Your task to perform on an android device: see creations saved in the google photos Image 0: 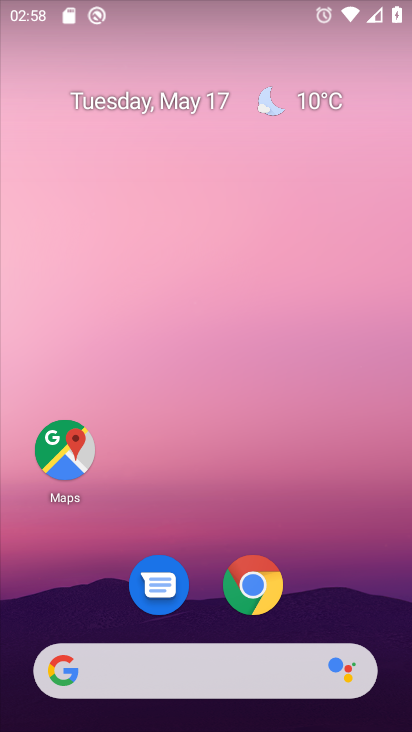
Step 0: drag from (300, 462) to (294, 0)
Your task to perform on an android device: see creations saved in the google photos Image 1: 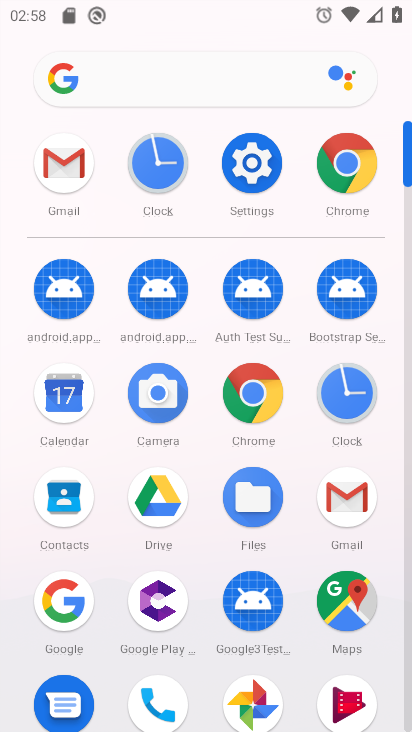
Step 1: click (256, 685)
Your task to perform on an android device: see creations saved in the google photos Image 2: 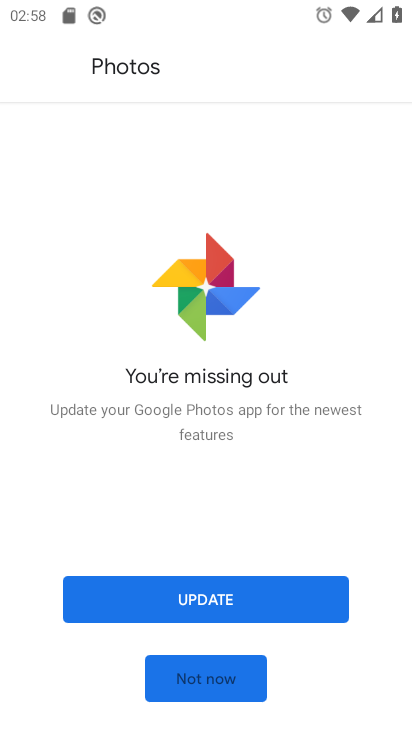
Step 2: click (222, 681)
Your task to perform on an android device: see creations saved in the google photos Image 3: 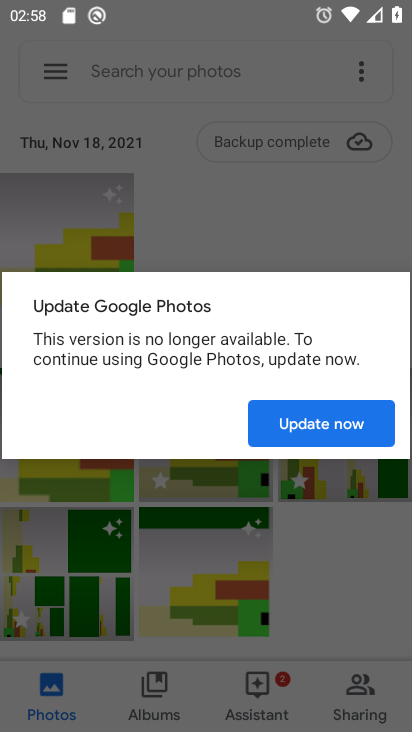
Step 3: click (336, 423)
Your task to perform on an android device: see creations saved in the google photos Image 4: 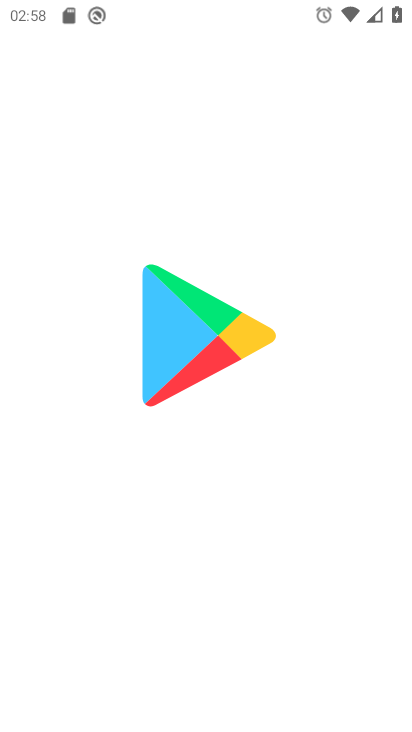
Step 4: click (184, 64)
Your task to perform on an android device: see creations saved in the google photos Image 5: 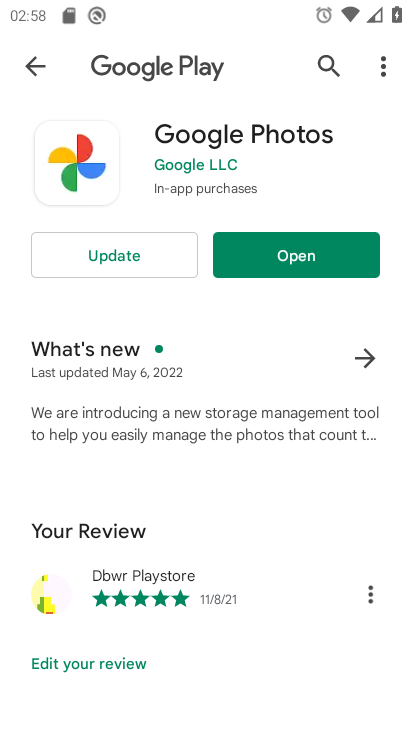
Step 5: click (305, 254)
Your task to perform on an android device: see creations saved in the google photos Image 6: 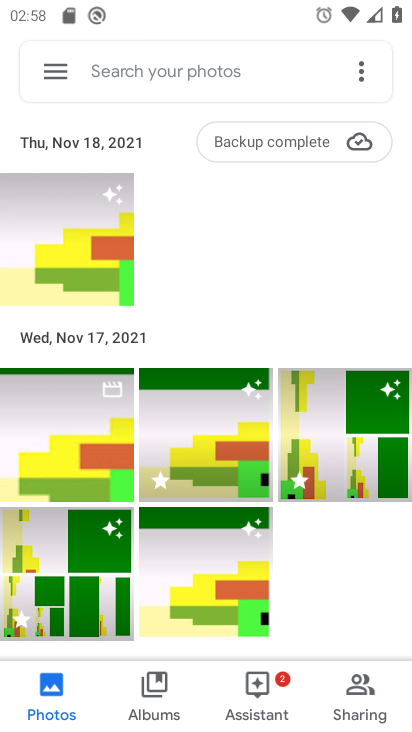
Step 6: click (229, 62)
Your task to perform on an android device: see creations saved in the google photos Image 7: 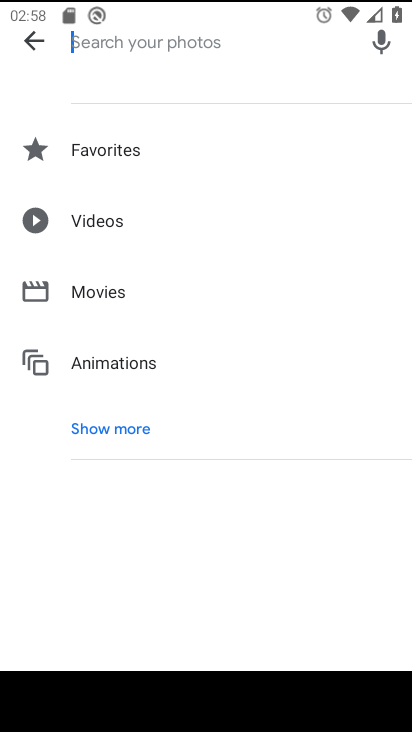
Step 7: click (141, 418)
Your task to perform on an android device: see creations saved in the google photos Image 8: 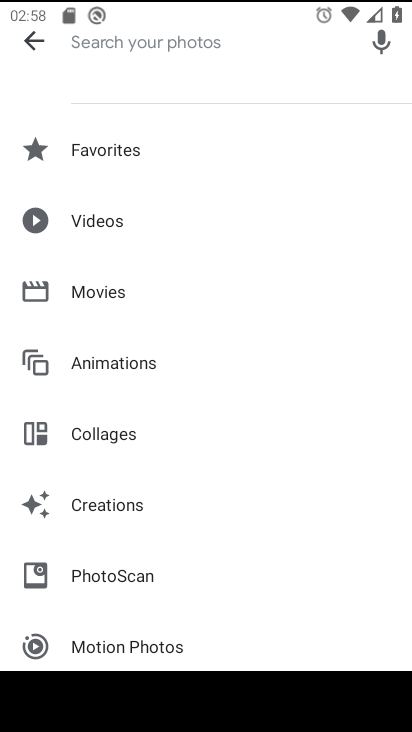
Step 8: click (119, 509)
Your task to perform on an android device: see creations saved in the google photos Image 9: 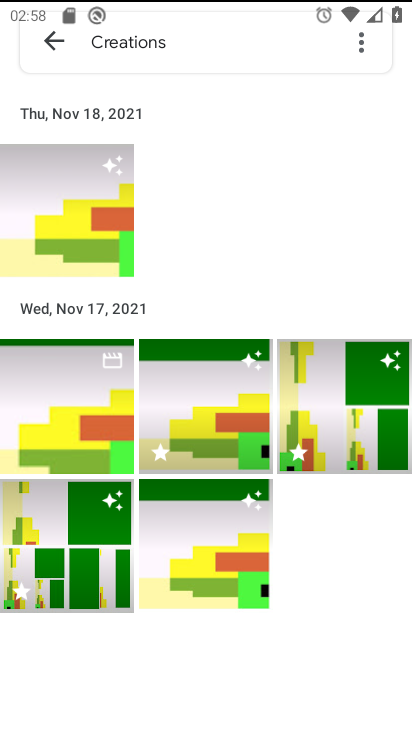
Step 9: task complete